Your task to perform on an android device: change the clock display to digital Image 0: 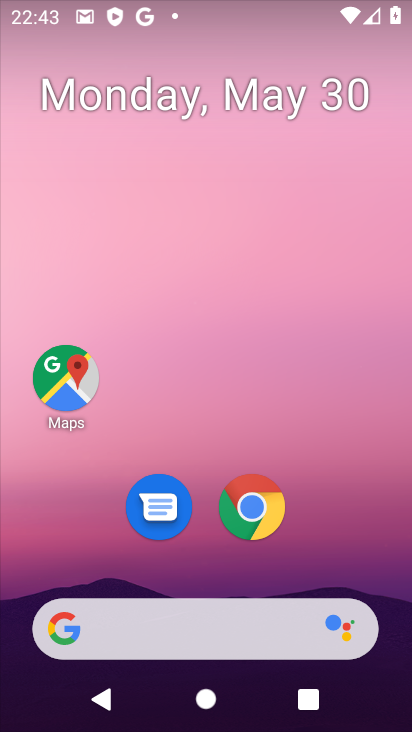
Step 0: drag from (376, 570) to (387, 168)
Your task to perform on an android device: change the clock display to digital Image 1: 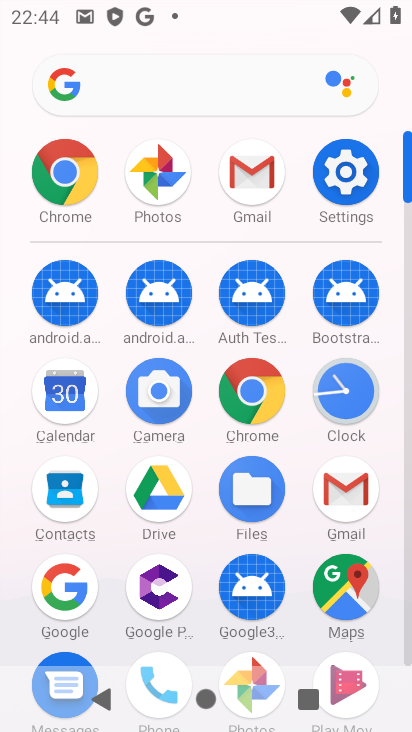
Step 1: click (356, 393)
Your task to perform on an android device: change the clock display to digital Image 2: 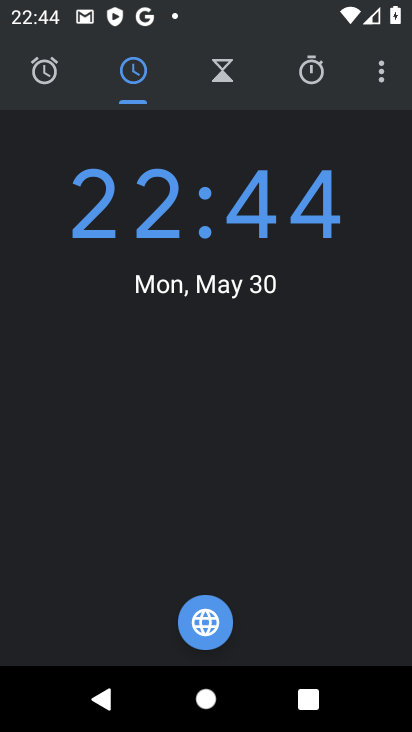
Step 2: click (381, 82)
Your task to perform on an android device: change the clock display to digital Image 3: 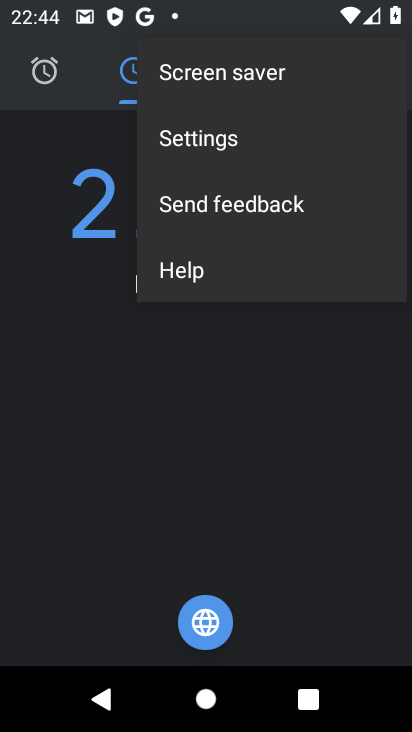
Step 3: click (240, 146)
Your task to perform on an android device: change the clock display to digital Image 4: 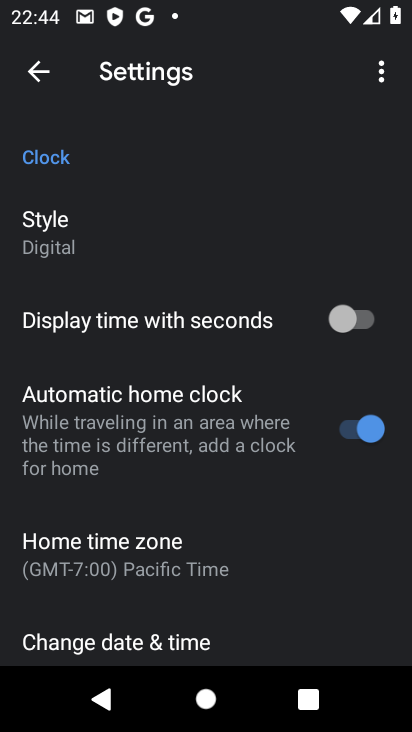
Step 4: task complete